Your task to perform on an android device: toggle notification dots Image 0: 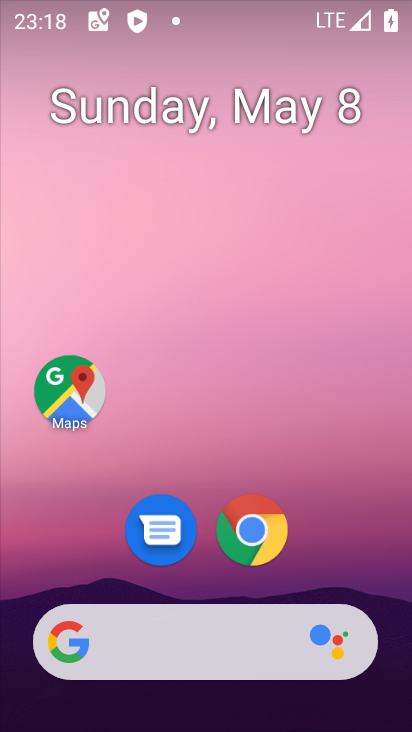
Step 0: drag from (391, 572) to (360, 180)
Your task to perform on an android device: toggle notification dots Image 1: 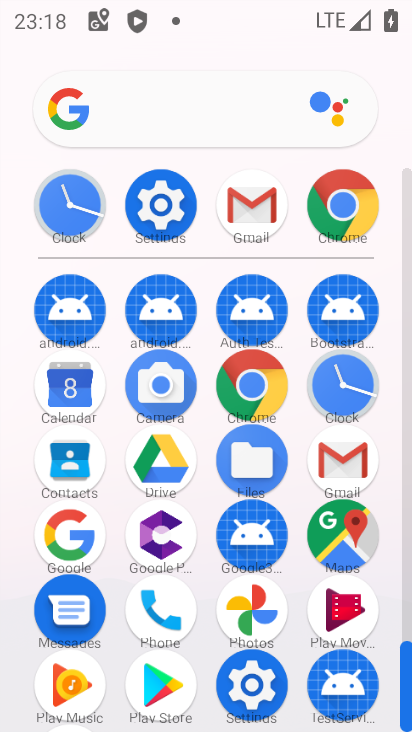
Step 1: click (159, 204)
Your task to perform on an android device: toggle notification dots Image 2: 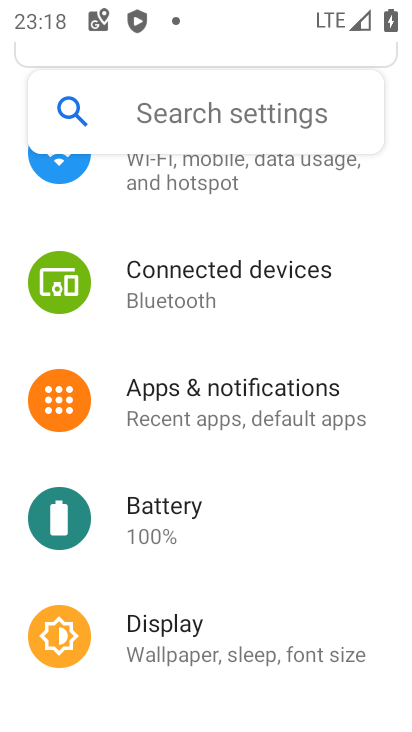
Step 2: drag from (255, 260) to (261, 619)
Your task to perform on an android device: toggle notification dots Image 3: 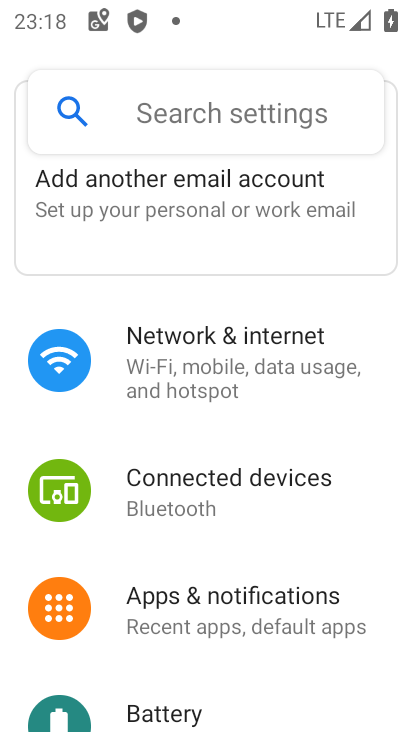
Step 3: click (261, 619)
Your task to perform on an android device: toggle notification dots Image 4: 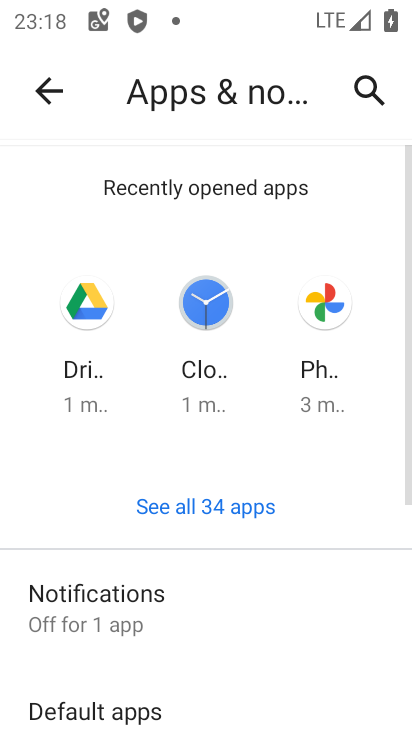
Step 4: drag from (251, 655) to (257, 272)
Your task to perform on an android device: toggle notification dots Image 5: 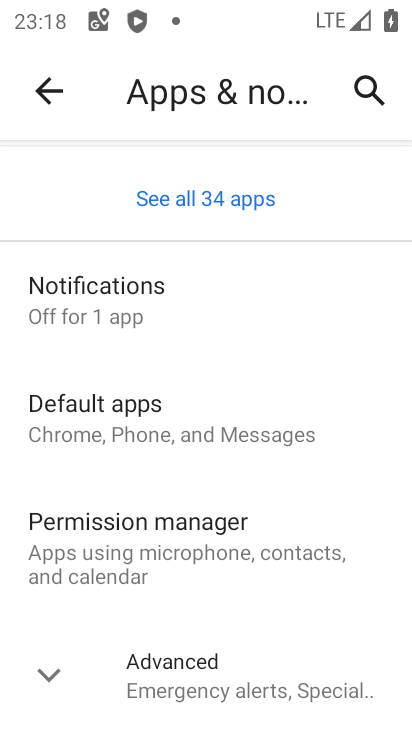
Step 5: drag from (245, 631) to (280, 332)
Your task to perform on an android device: toggle notification dots Image 6: 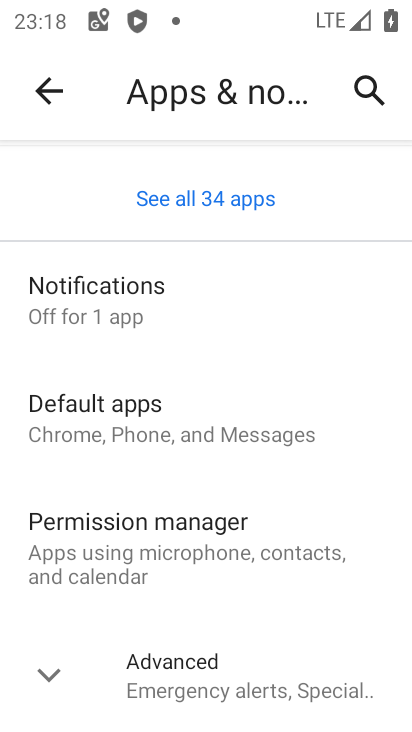
Step 6: click (141, 292)
Your task to perform on an android device: toggle notification dots Image 7: 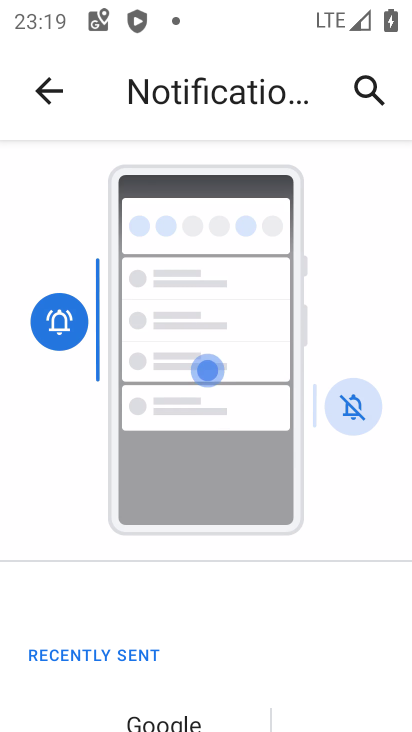
Step 7: drag from (324, 634) to (340, 284)
Your task to perform on an android device: toggle notification dots Image 8: 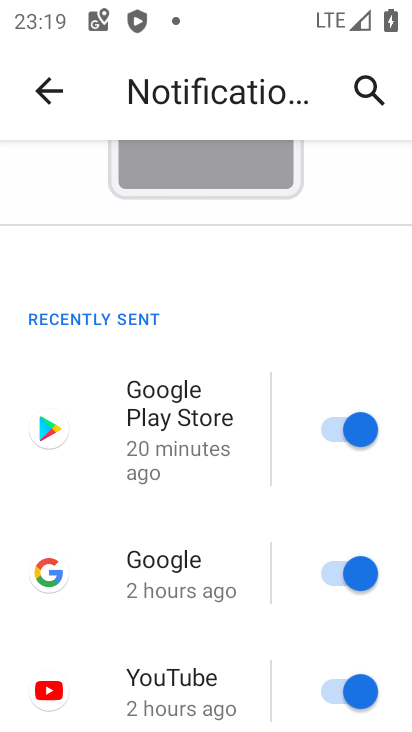
Step 8: drag from (250, 664) to (261, 257)
Your task to perform on an android device: toggle notification dots Image 9: 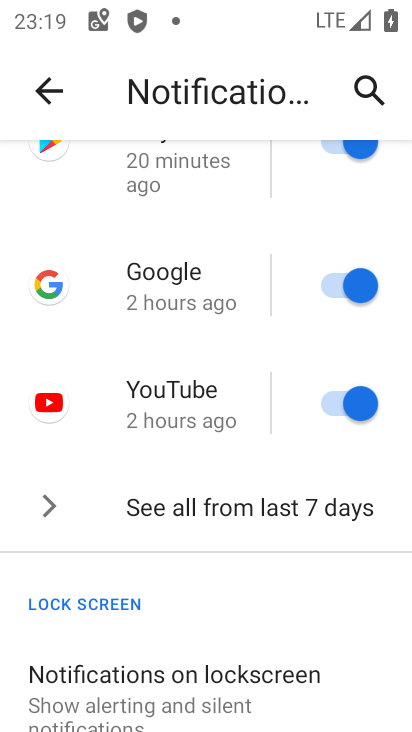
Step 9: drag from (244, 711) to (281, 292)
Your task to perform on an android device: toggle notification dots Image 10: 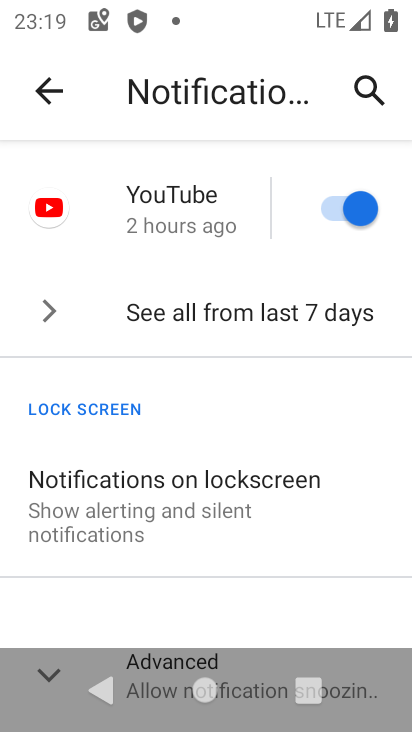
Step 10: drag from (239, 645) to (272, 241)
Your task to perform on an android device: toggle notification dots Image 11: 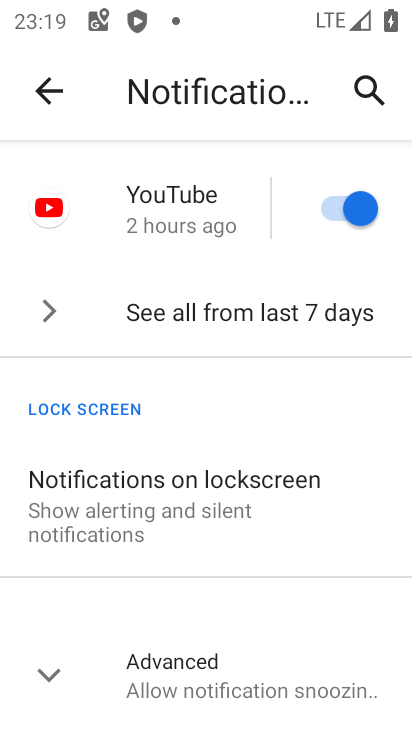
Step 11: click (221, 659)
Your task to perform on an android device: toggle notification dots Image 12: 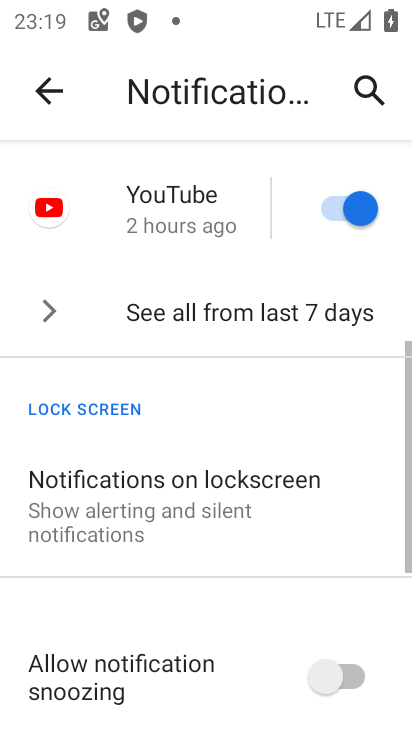
Step 12: drag from (269, 683) to (293, 338)
Your task to perform on an android device: toggle notification dots Image 13: 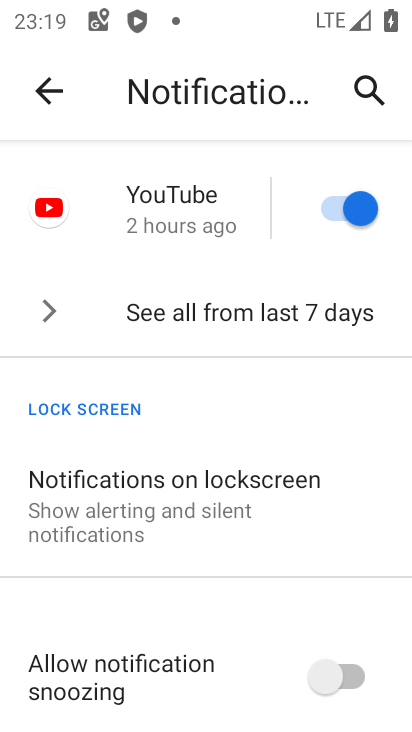
Step 13: drag from (214, 637) to (268, 308)
Your task to perform on an android device: toggle notification dots Image 14: 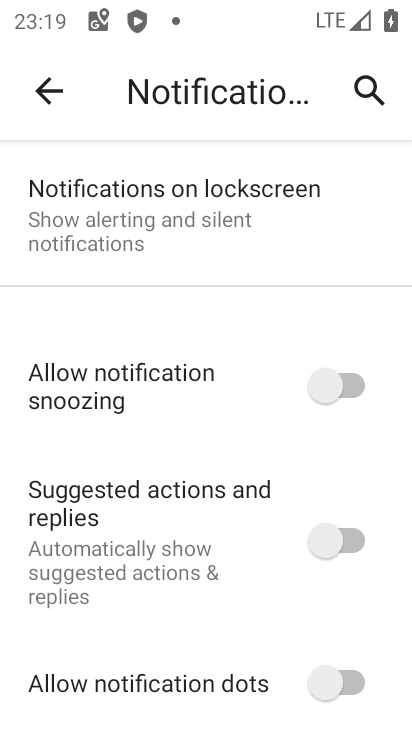
Step 14: drag from (240, 614) to (258, 326)
Your task to perform on an android device: toggle notification dots Image 15: 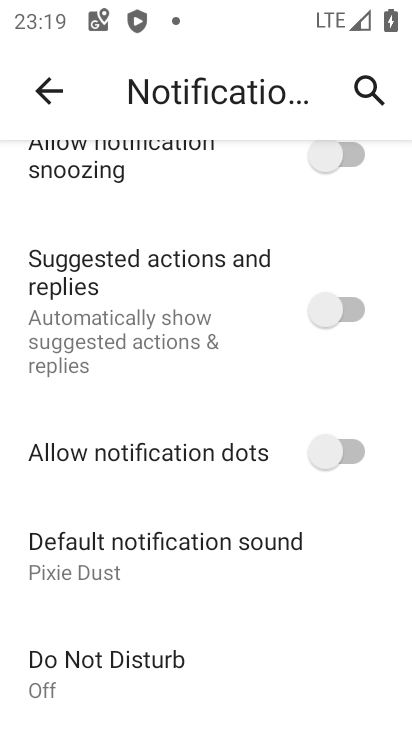
Step 15: click (352, 450)
Your task to perform on an android device: toggle notification dots Image 16: 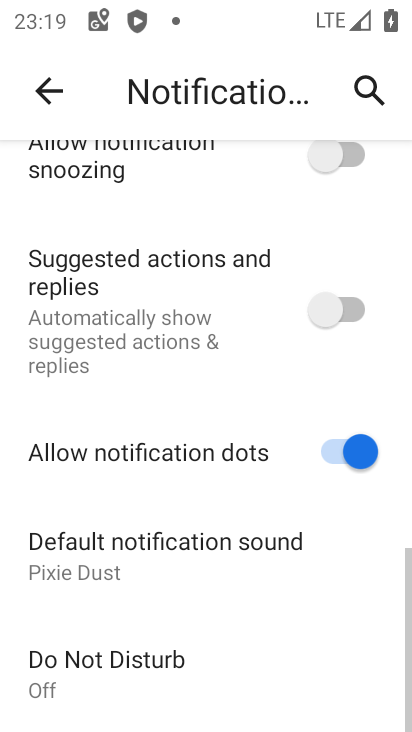
Step 16: task complete